Your task to perform on an android device: open a bookmark in the chrome app Image 0: 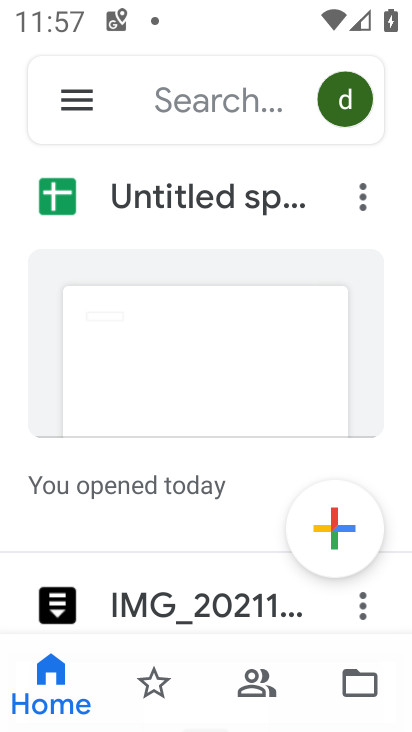
Step 0: press home button
Your task to perform on an android device: open a bookmark in the chrome app Image 1: 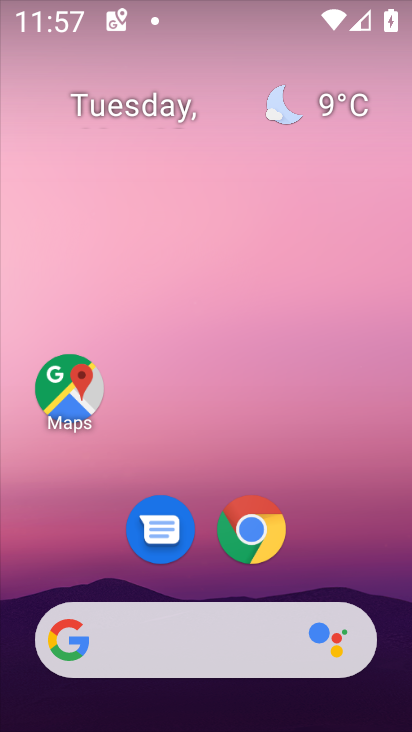
Step 1: click (267, 536)
Your task to perform on an android device: open a bookmark in the chrome app Image 2: 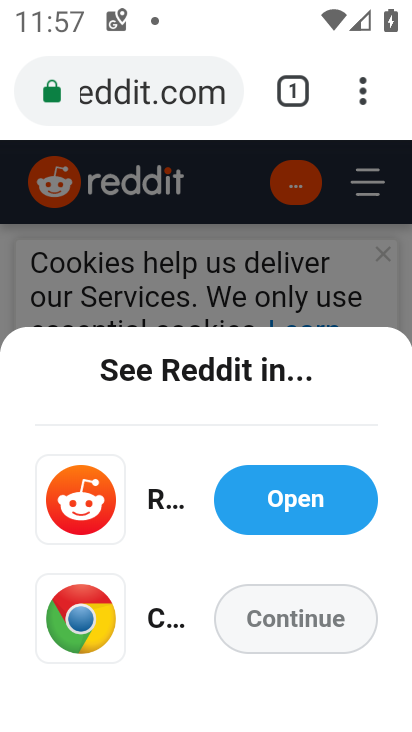
Step 2: drag from (360, 100) to (234, 351)
Your task to perform on an android device: open a bookmark in the chrome app Image 3: 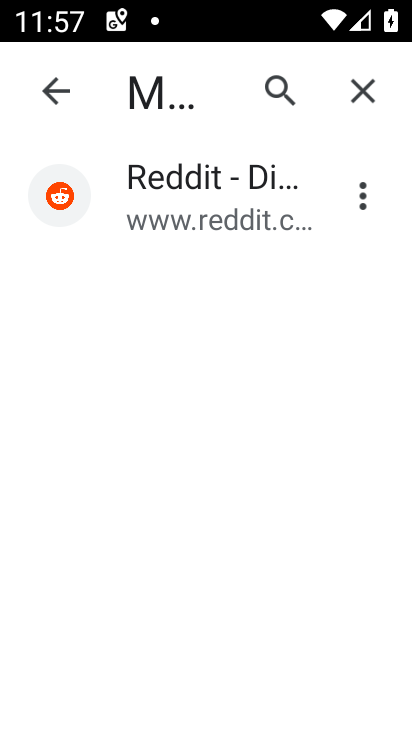
Step 3: click (226, 215)
Your task to perform on an android device: open a bookmark in the chrome app Image 4: 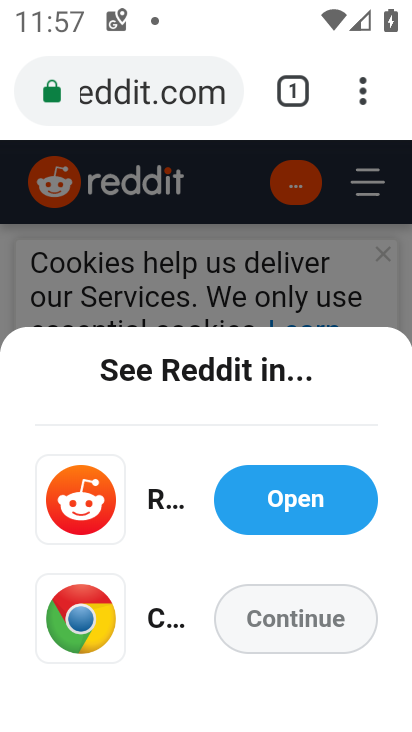
Step 4: task complete